Your task to perform on an android device: open app "LiveIn - Share Your Moment" (install if not already installed) and go to login screen Image 0: 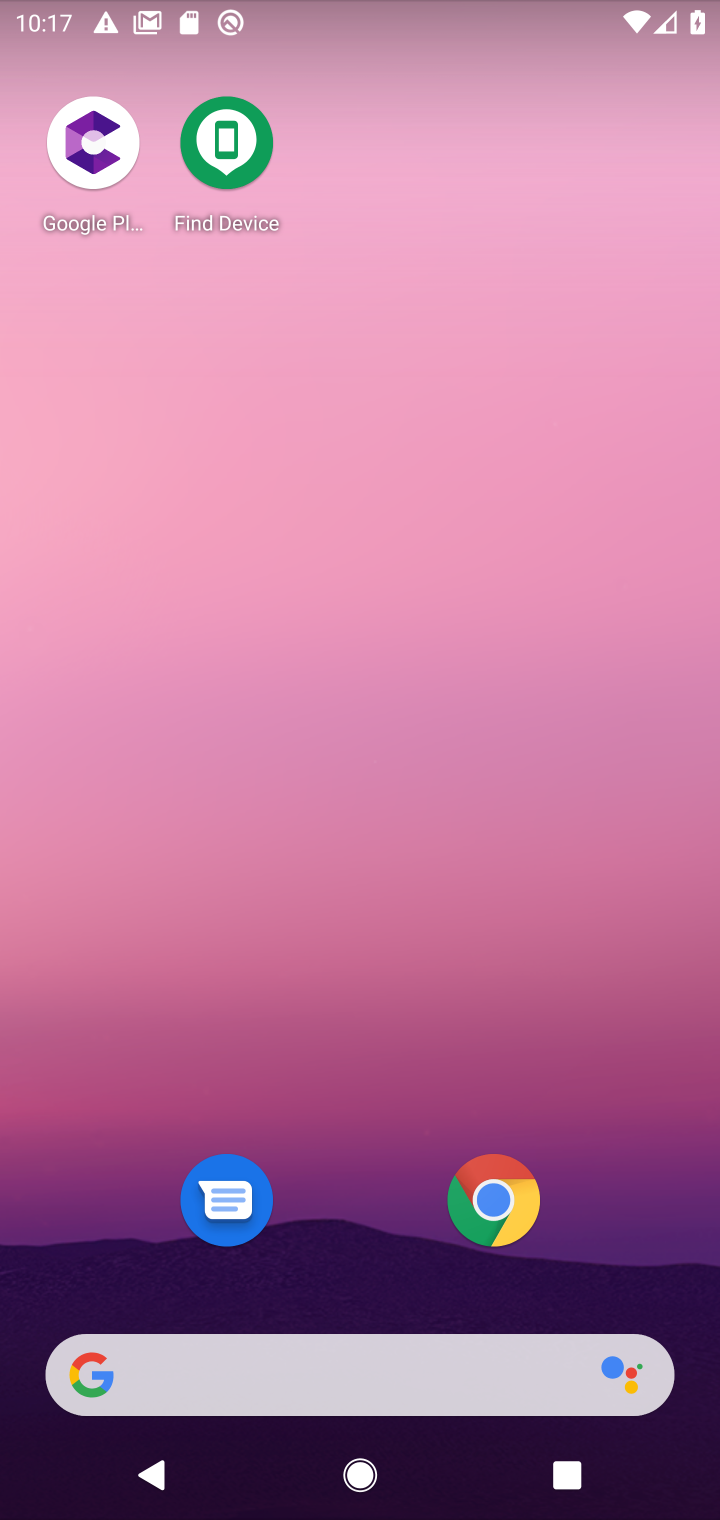
Step 0: drag from (329, 1224) to (716, 340)
Your task to perform on an android device: open app "LiveIn - Share Your Moment" (install if not already installed) and go to login screen Image 1: 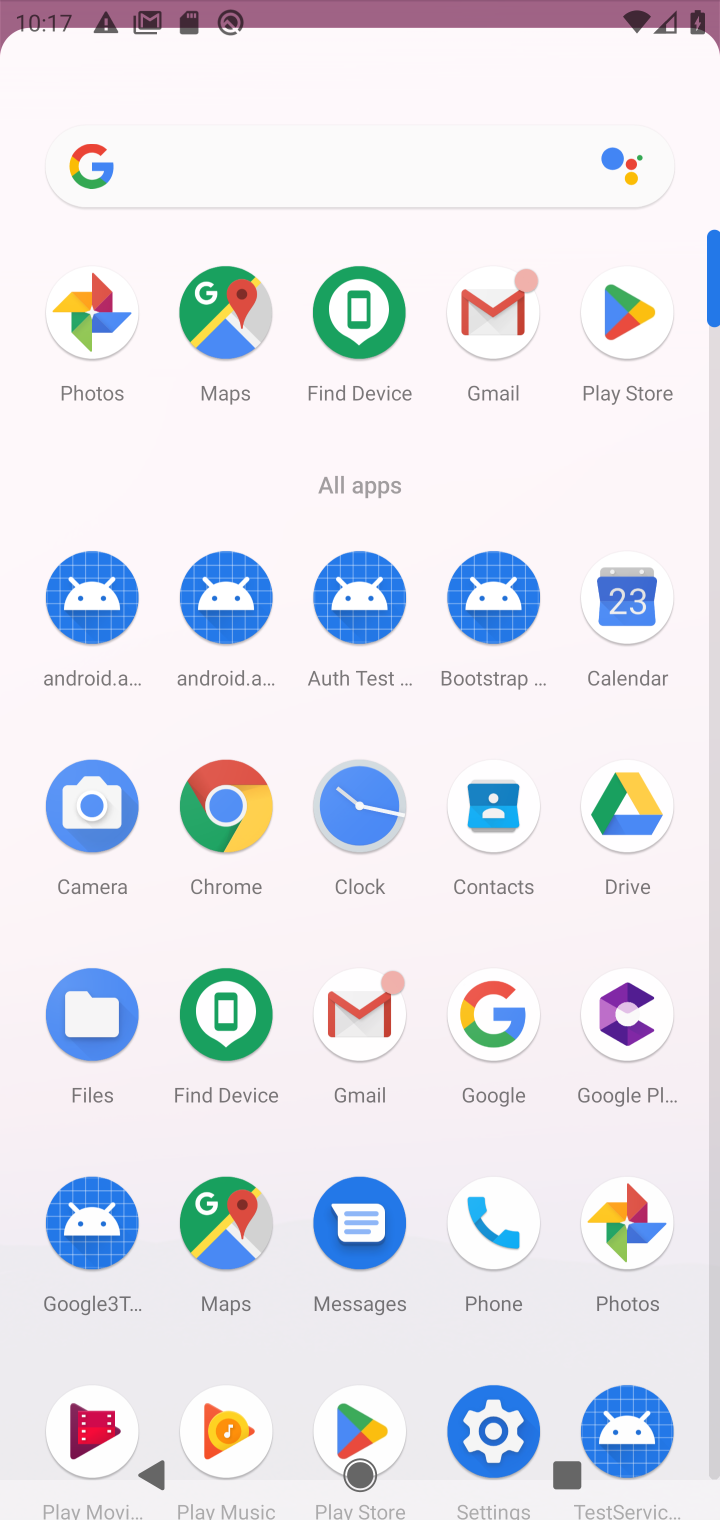
Step 1: click (647, 332)
Your task to perform on an android device: open app "LiveIn - Share Your Moment" (install if not already installed) and go to login screen Image 2: 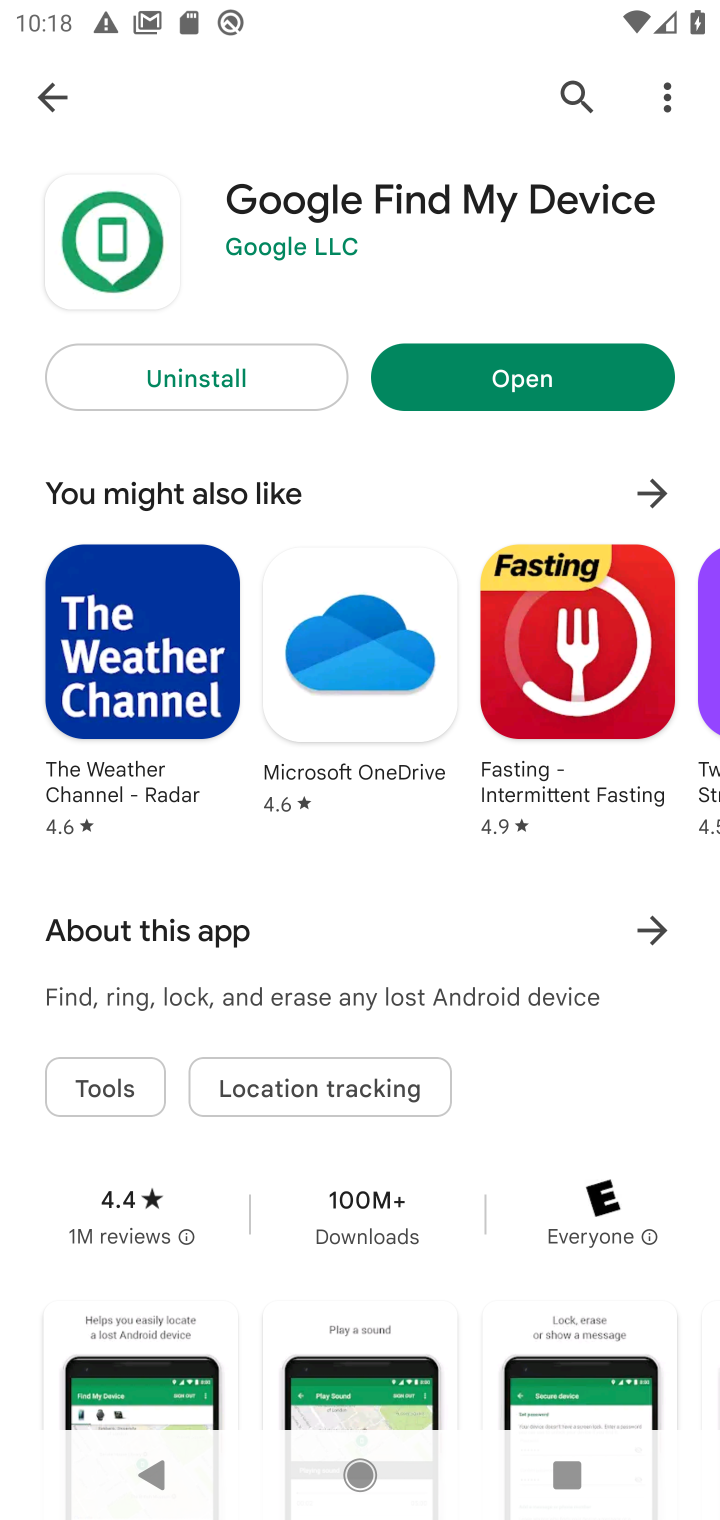
Step 2: click (51, 107)
Your task to perform on an android device: open app "LiveIn - Share Your Moment" (install if not already installed) and go to login screen Image 3: 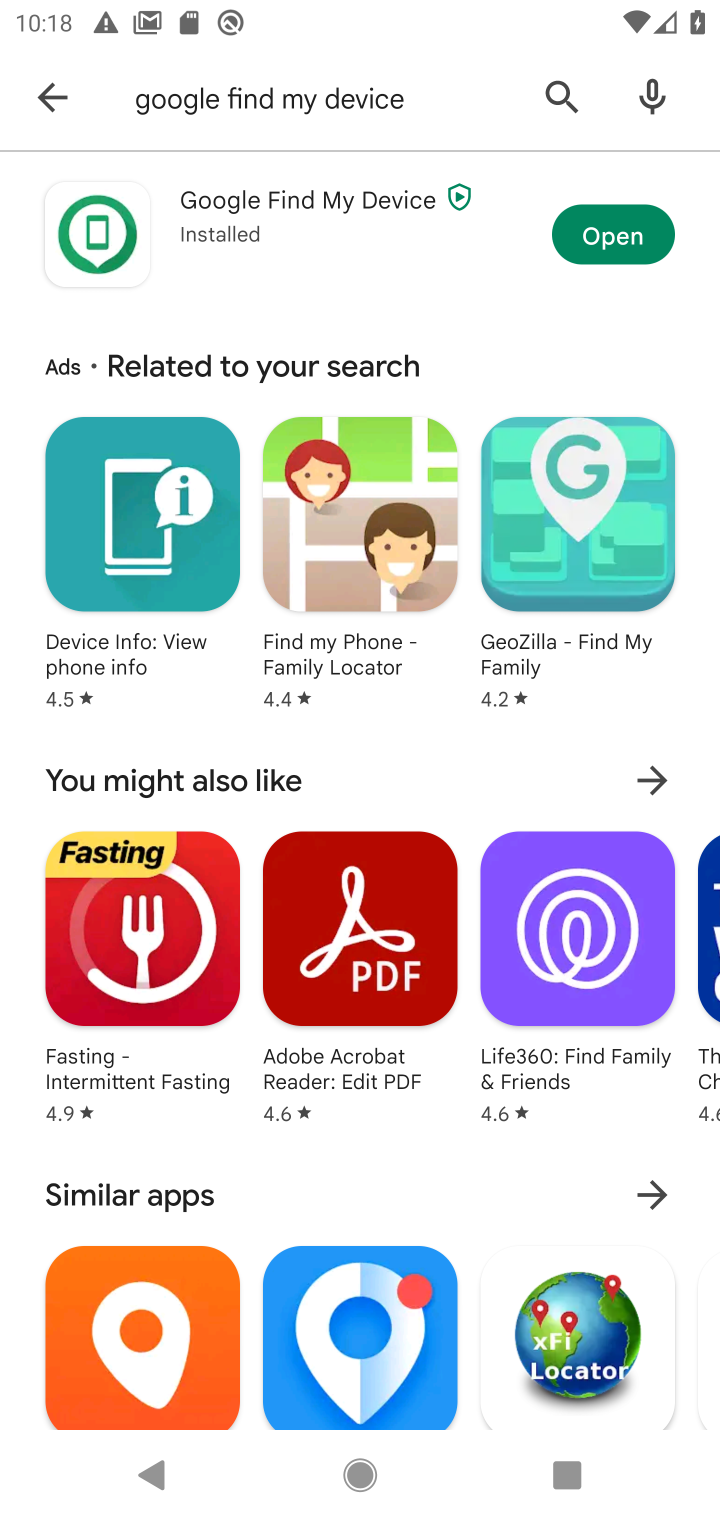
Step 3: click (31, 93)
Your task to perform on an android device: open app "LiveIn - Share Your Moment" (install if not already installed) and go to login screen Image 4: 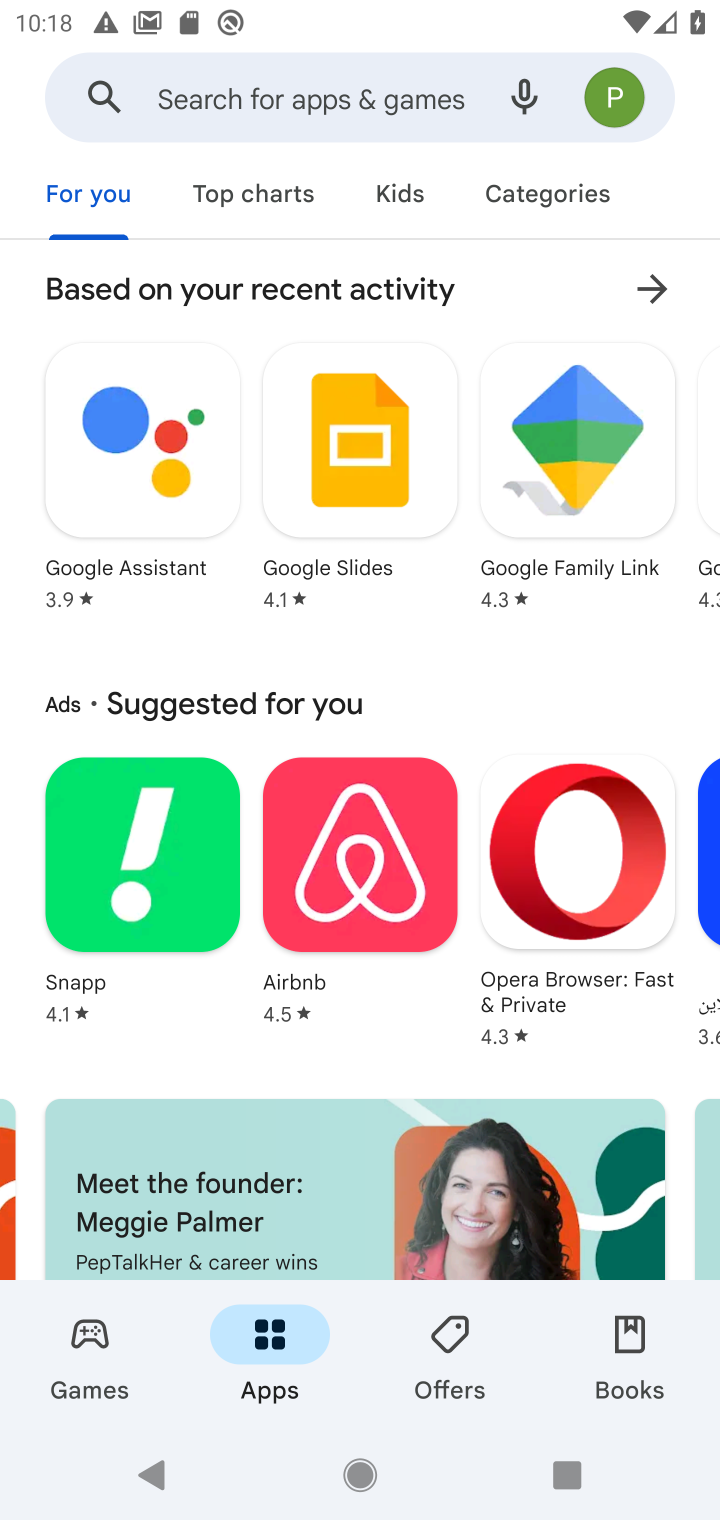
Step 4: click (157, 96)
Your task to perform on an android device: open app "LiveIn - Share Your Moment" (install if not already installed) and go to login screen Image 5: 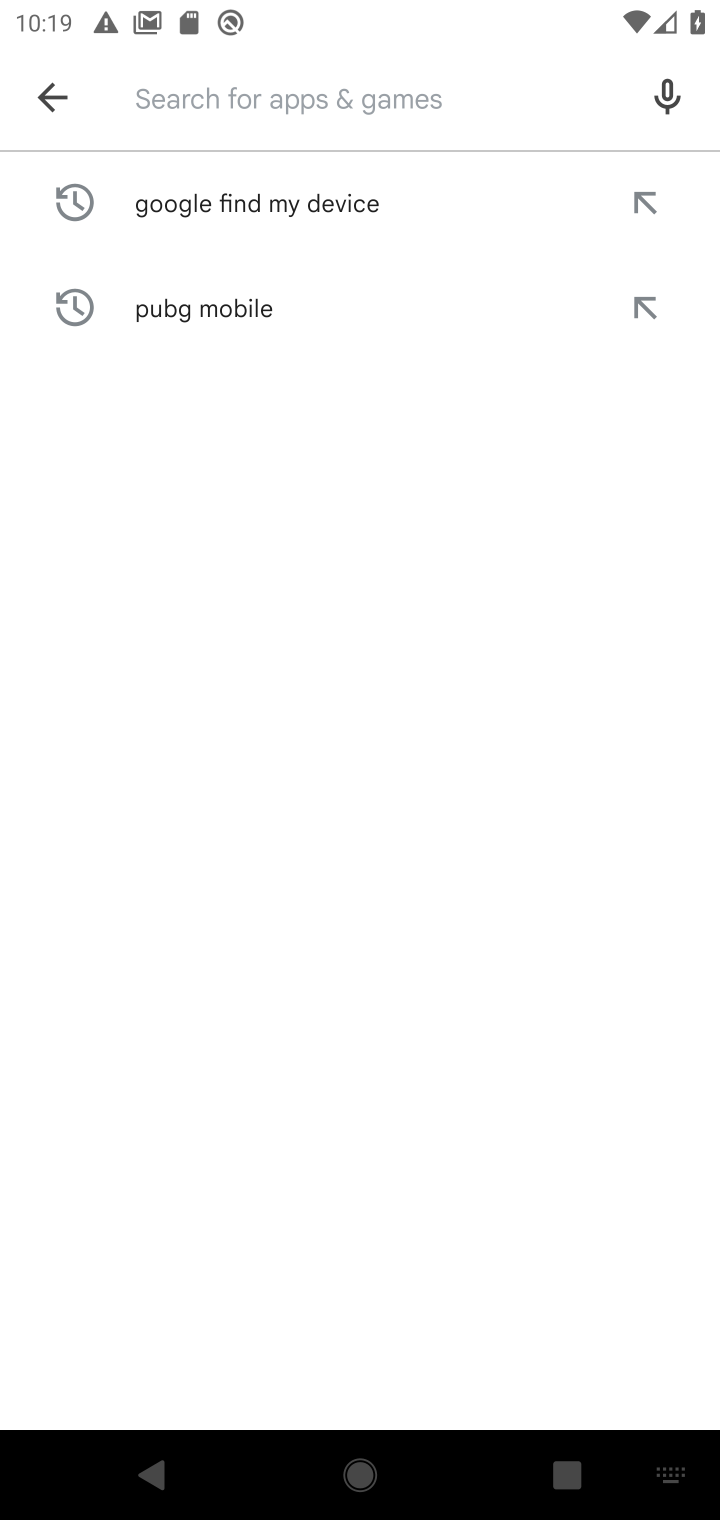
Step 5: type "LiveIn"
Your task to perform on an android device: open app "LiveIn - Share Your Moment" (install if not already installed) and go to login screen Image 6: 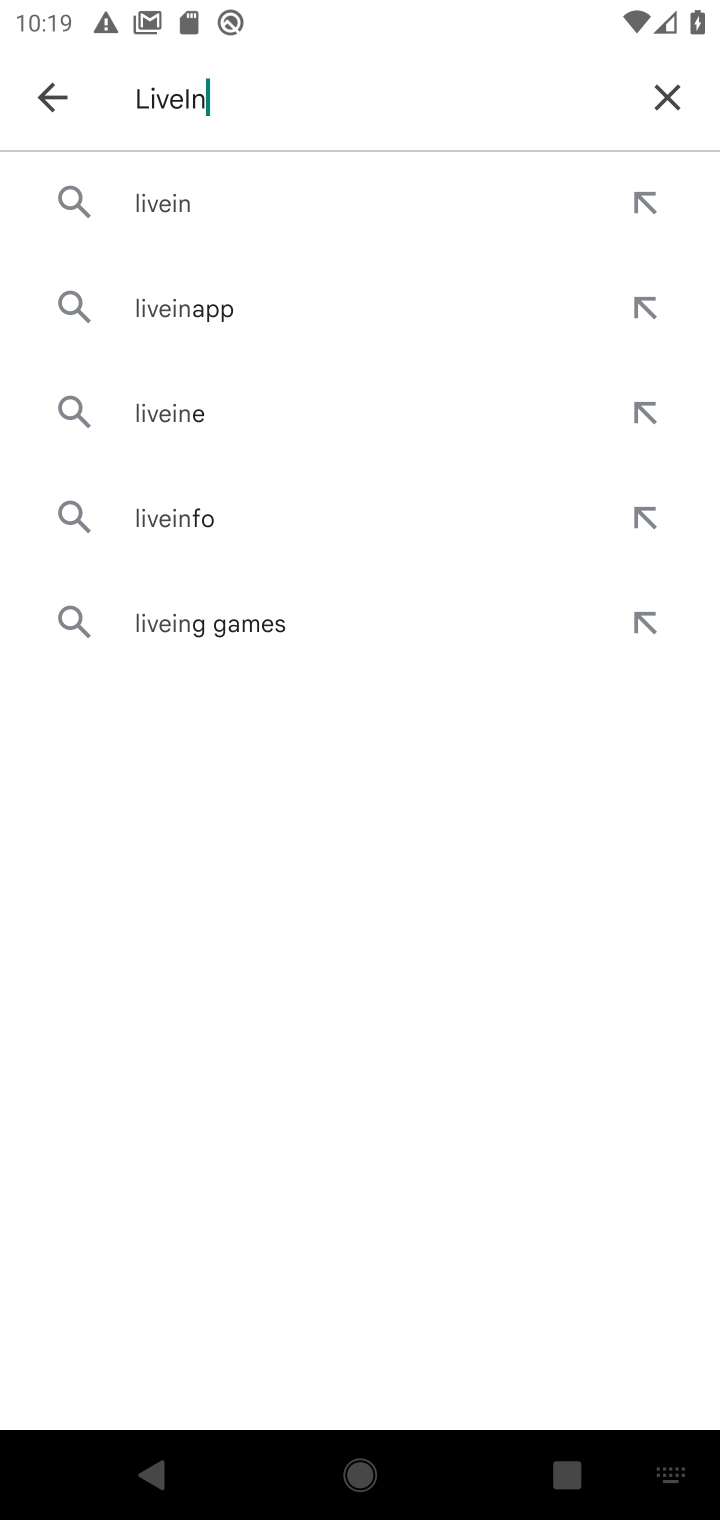
Step 6: click (174, 185)
Your task to perform on an android device: open app "LiveIn - Share Your Moment" (install if not already installed) and go to login screen Image 7: 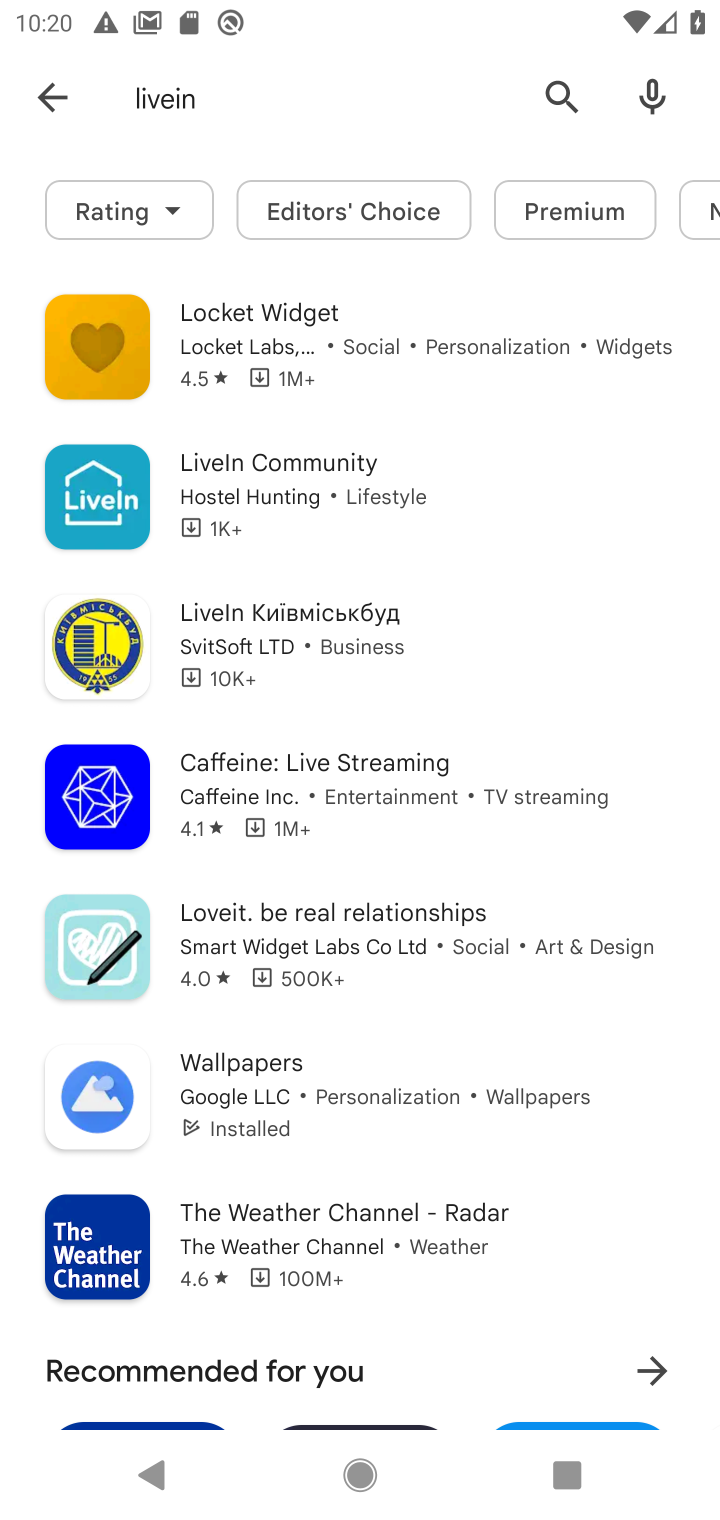
Step 7: click (502, 99)
Your task to perform on an android device: open app "LiveIn - Share Your Moment" (install if not already installed) and go to login screen Image 8: 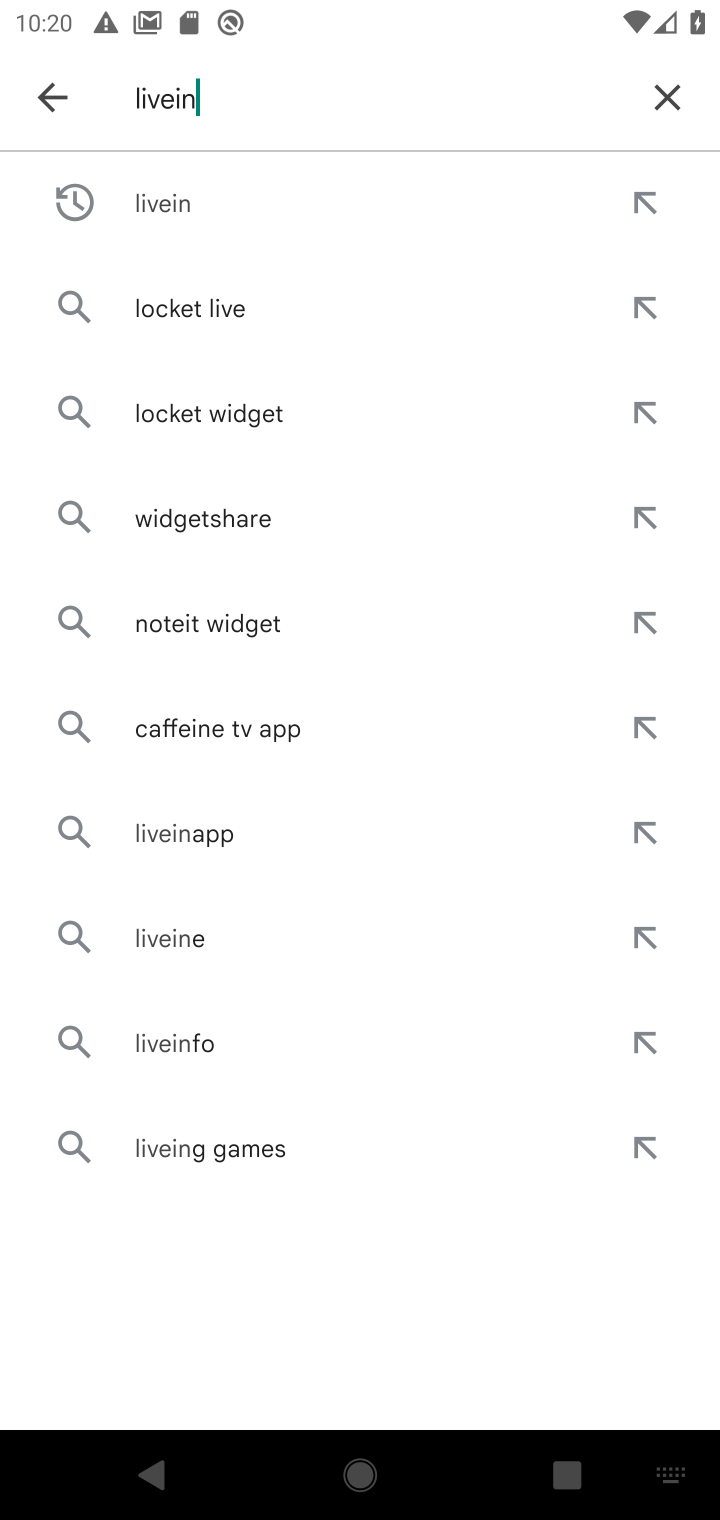
Step 8: click (669, 92)
Your task to perform on an android device: open app "LiveIn - Share Your Moment" (install if not already installed) and go to login screen Image 9: 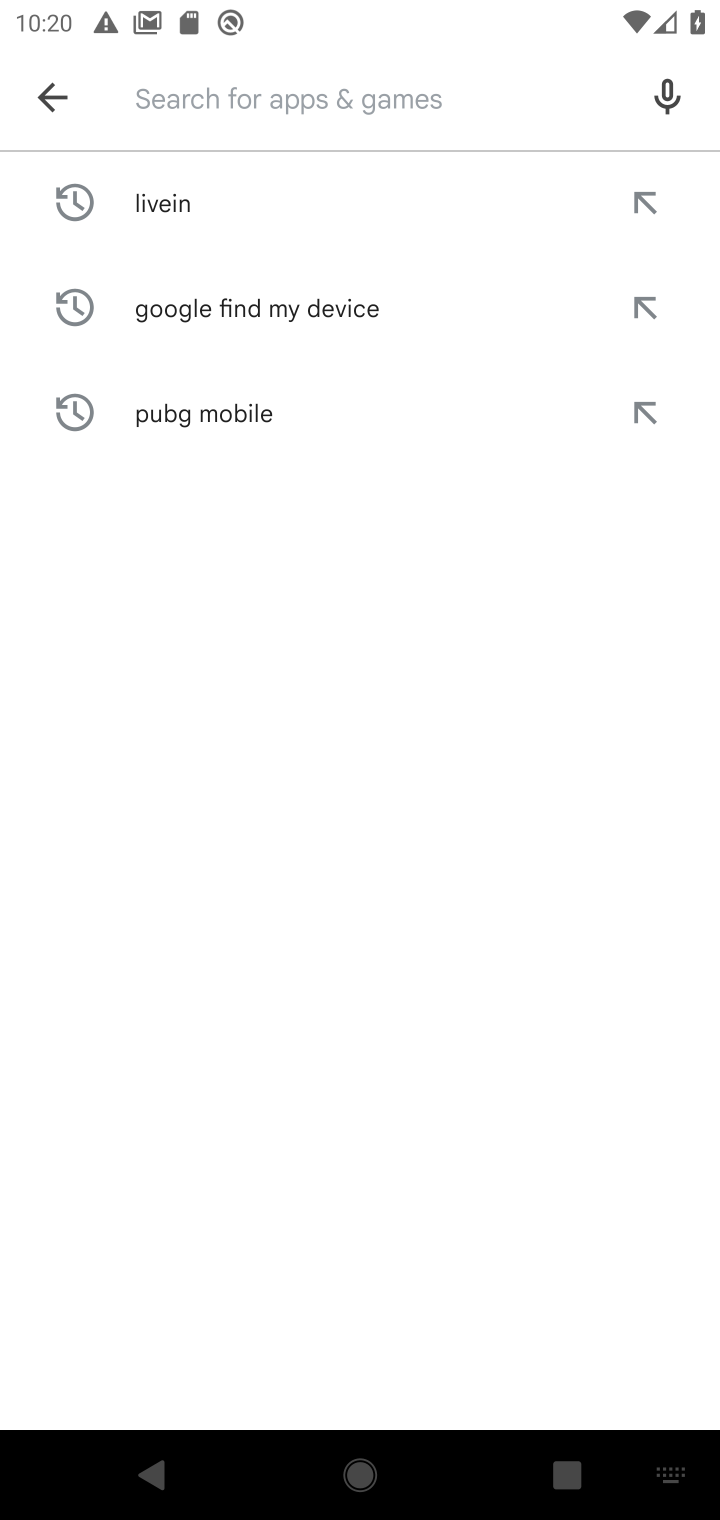
Step 9: type "LiveIn - Share Your Momen"
Your task to perform on an android device: open app "LiveIn - Share Your Moment" (install if not already installed) and go to login screen Image 10: 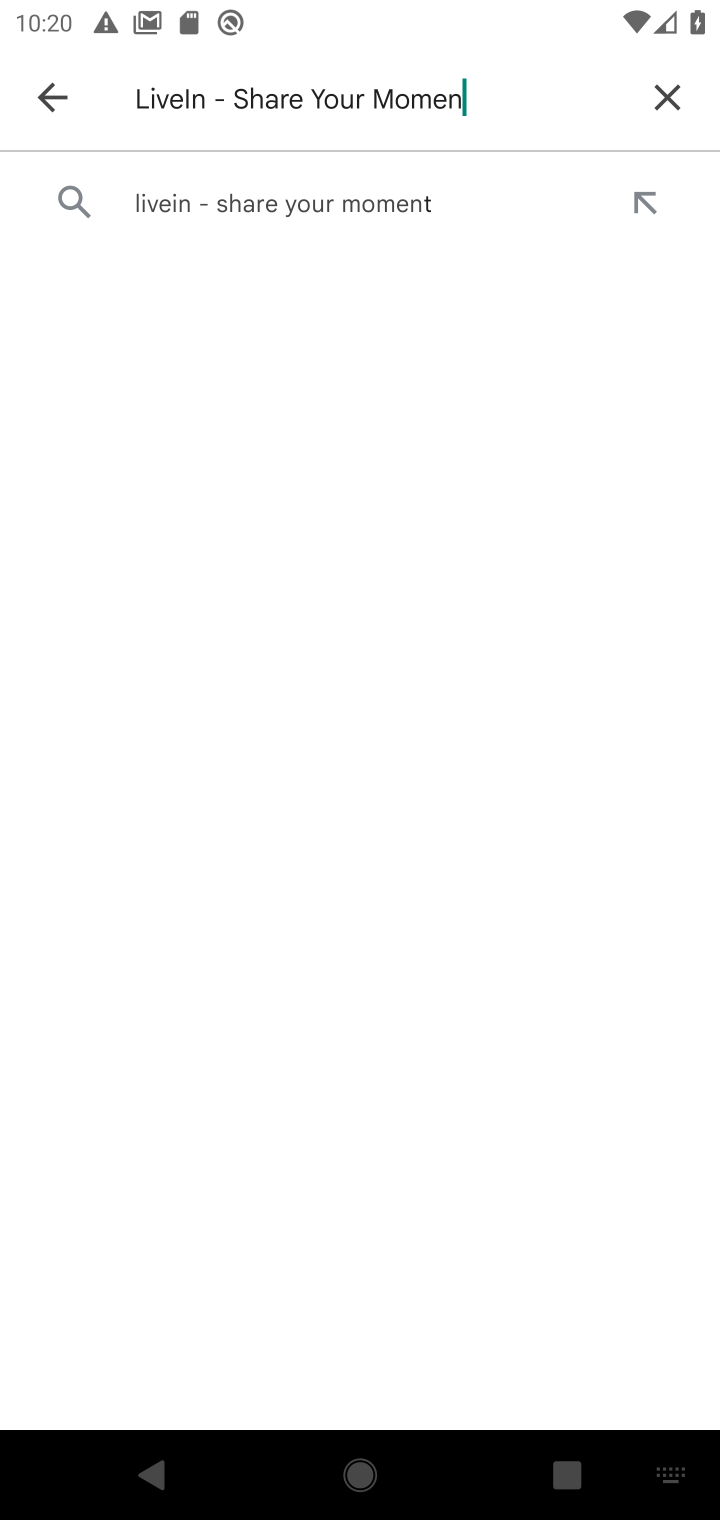
Step 10: click (327, 205)
Your task to perform on an android device: open app "LiveIn - Share Your Moment" (install if not already installed) and go to login screen Image 11: 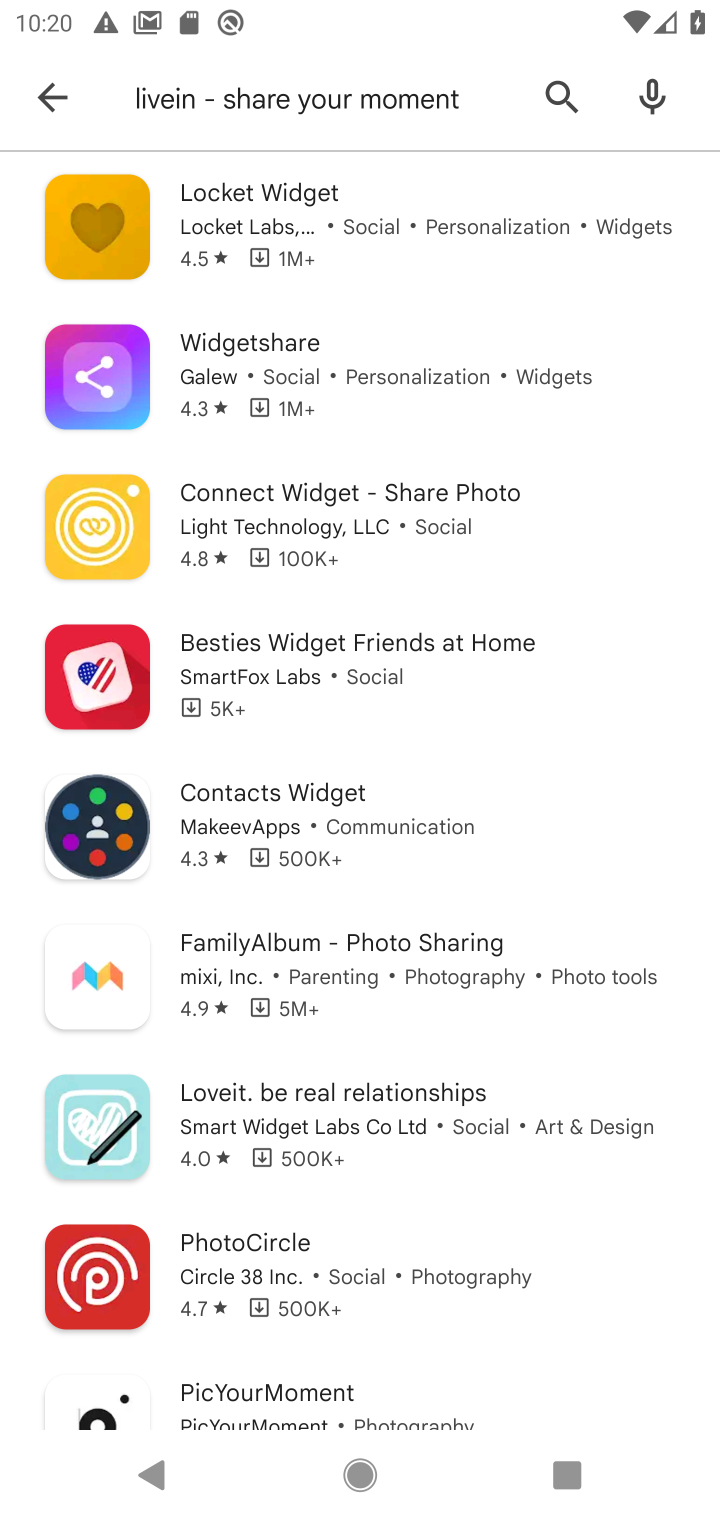
Step 11: task complete